Your task to perform on an android device: Open the stopwatch Image 0: 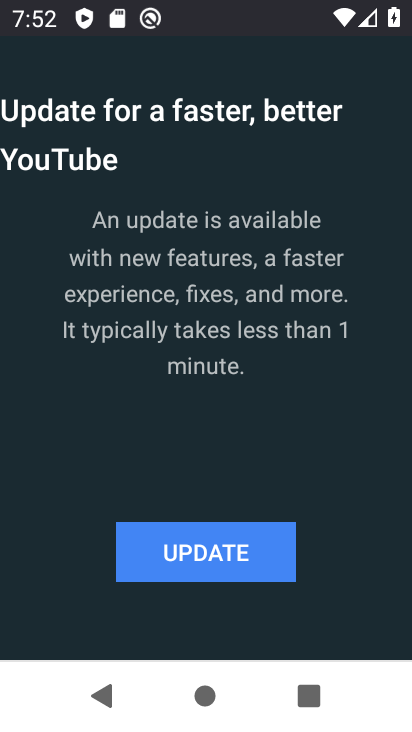
Step 0: press home button
Your task to perform on an android device: Open the stopwatch Image 1: 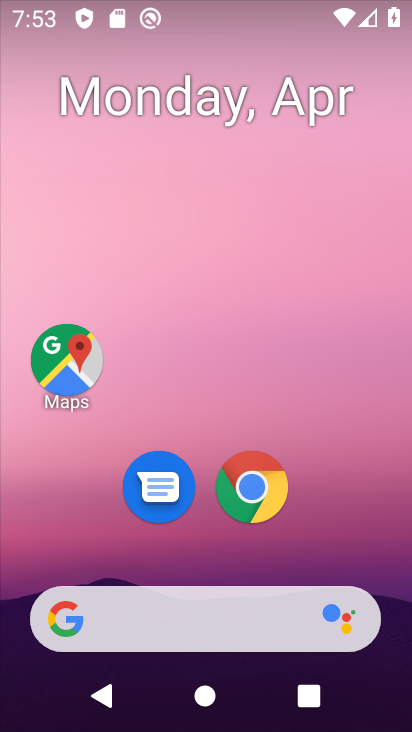
Step 1: drag from (333, 541) to (285, 23)
Your task to perform on an android device: Open the stopwatch Image 2: 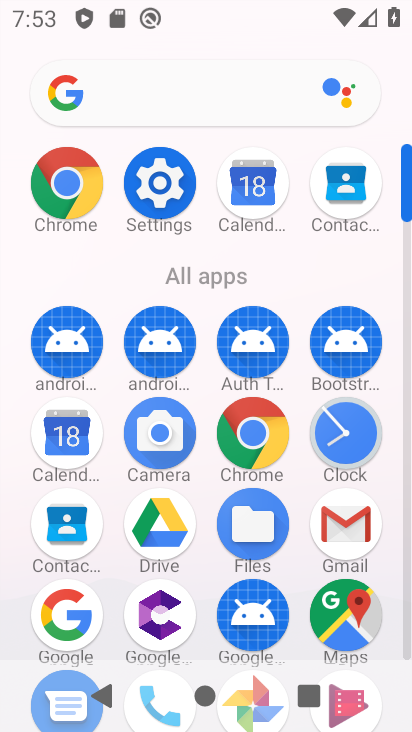
Step 2: click (355, 444)
Your task to perform on an android device: Open the stopwatch Image 3: 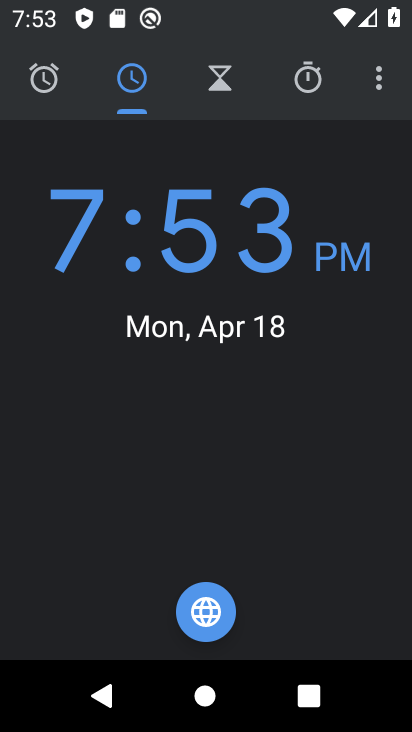
Step 3: click (304, 71)
Your task to perform on an android device: Open the stopwatch Image 4: 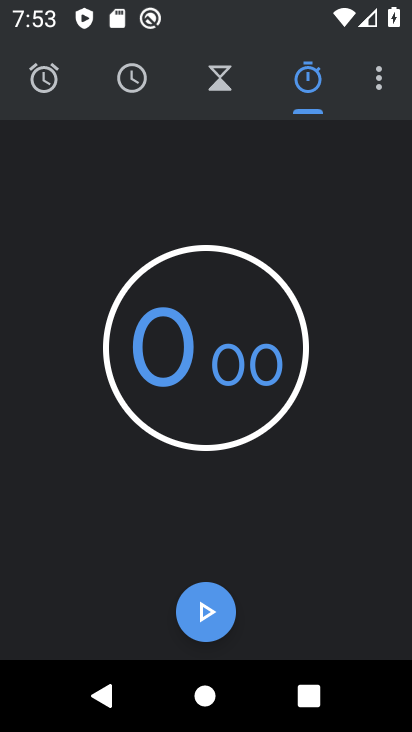
Step 4: task complete